Your task to perform on an android device: Open Google Chrome and open the bookmarks view Image 0: 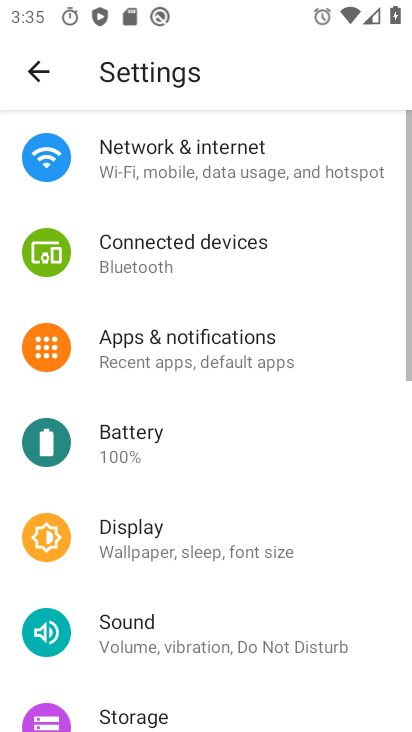
Step 0: press home button
Your task to perform on an android device: Open Google Chrome and open the bookmarks view Image 1: 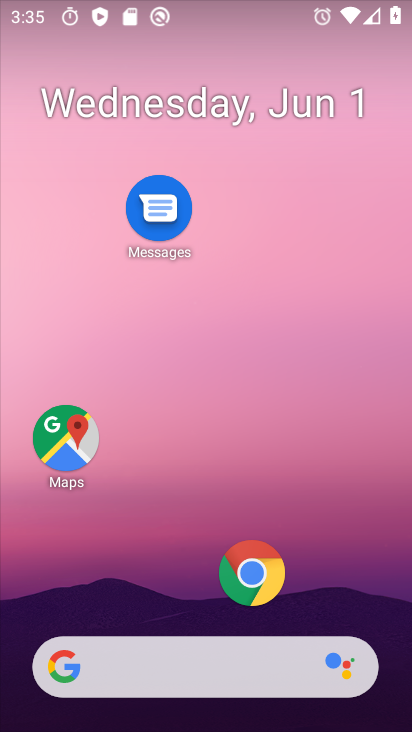
Step 1: click (260, 561)
Your task to perform on an android device: Open Google Chrome and open the bookmarks view Image 2: 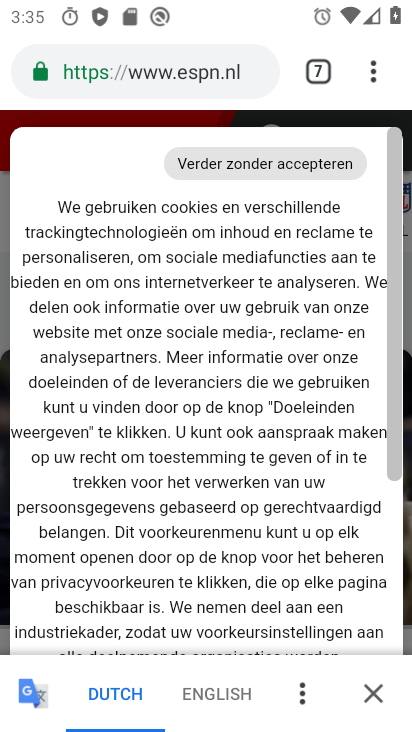
Step 2: task complete